Your task to perform on an android device: Open accessibility settings Image 0: 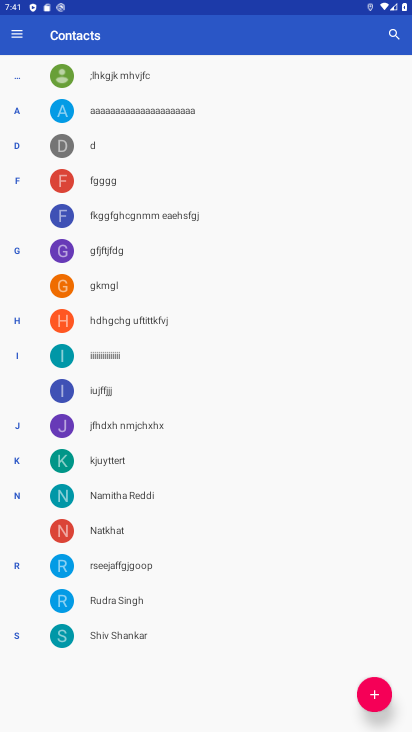
Step 0: press home button
Your task to perform on an android device: Open accessibility settings Image 1: 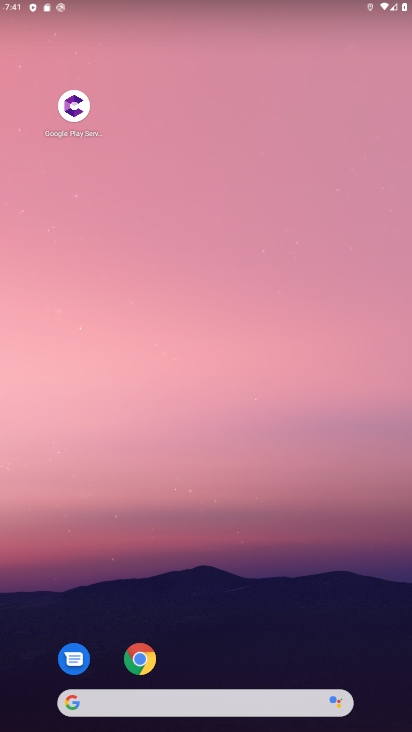
Step 1: drag from (247, 662) to (208, 173)
Your task to perform on an android device: Open accessibility settings Image 2: 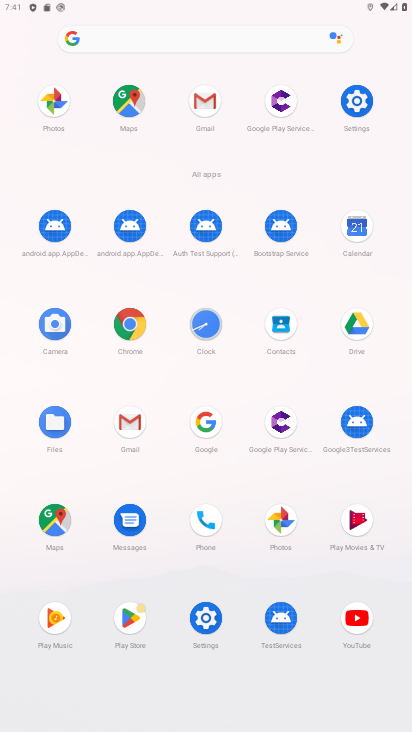
Step 2: click (363, 101)
Your task to perform on an android device: Open accessibility settings Image 3: 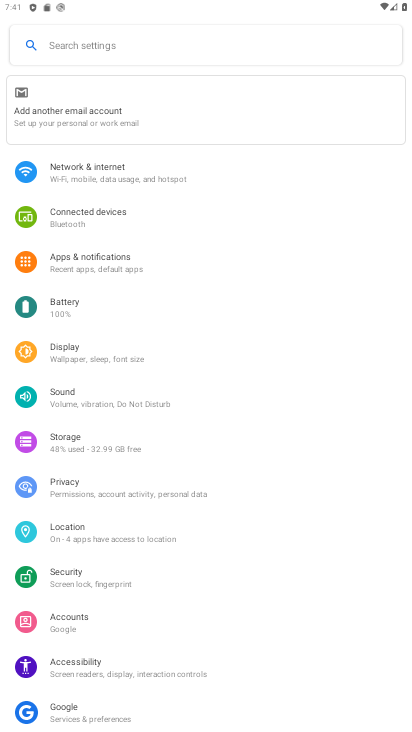
Step 3: click (137, 669)
Your task to perform on an android device: Open accessibility settings Image 4: 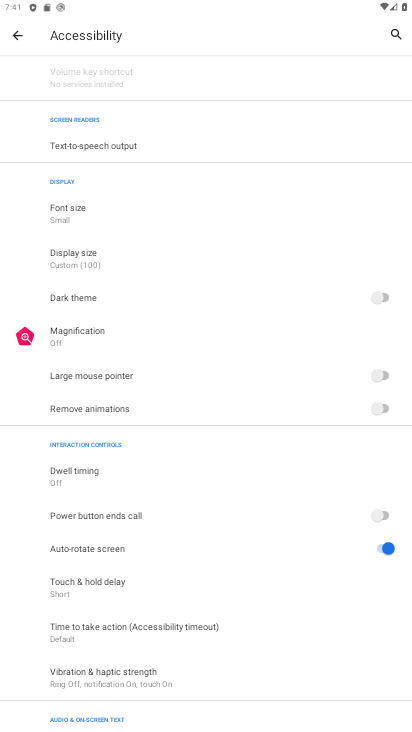
Step 4: task complete